Your task to perform on an android device: delete the emails in spam in the gmail app Image 0: 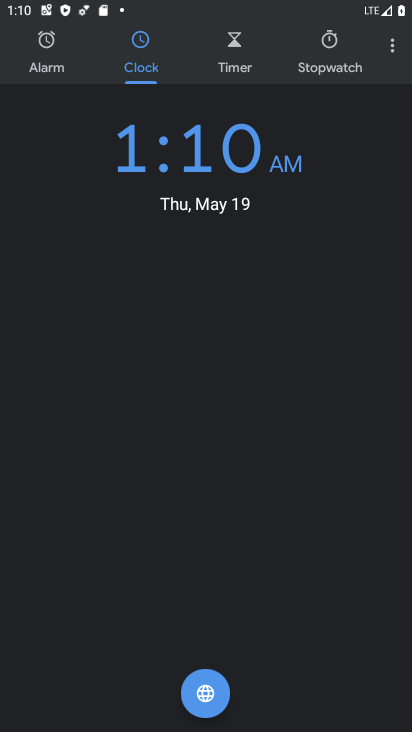
Step 0: press home button
Your task to perform on an android device: delete the emails in spam in the gmail app Image 1: 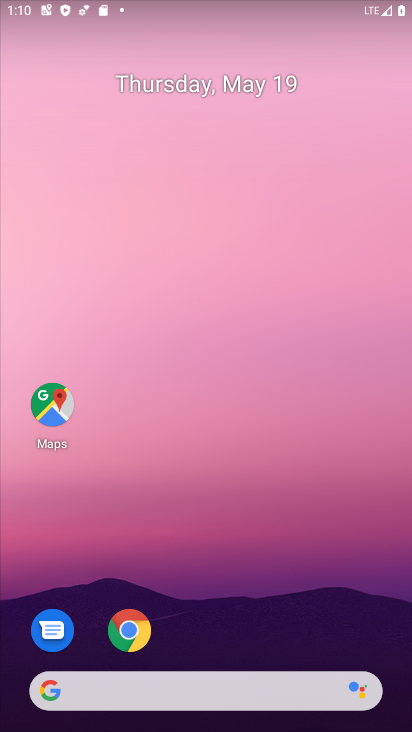
Step 1: drag from (189, 682) to (234, 104)
Your task to perform on an android device: delete the emails in spam in the gmail app Image 2: 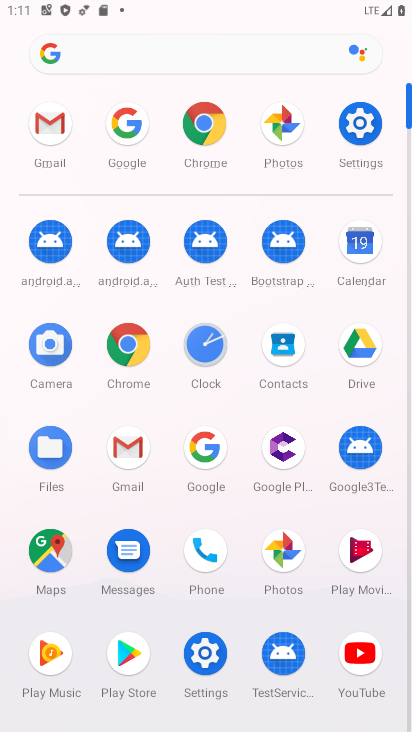
Step 2: click (128, 457)
Your task to perform on an android device: delete the emails in spam in the gmail app Image 3: 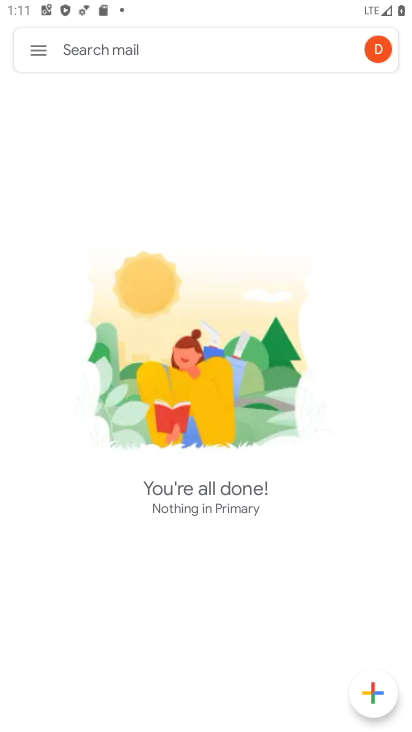
Step 3: task complete